Your task to perform on an android device: refresh tabs in the chrome app Image 0: 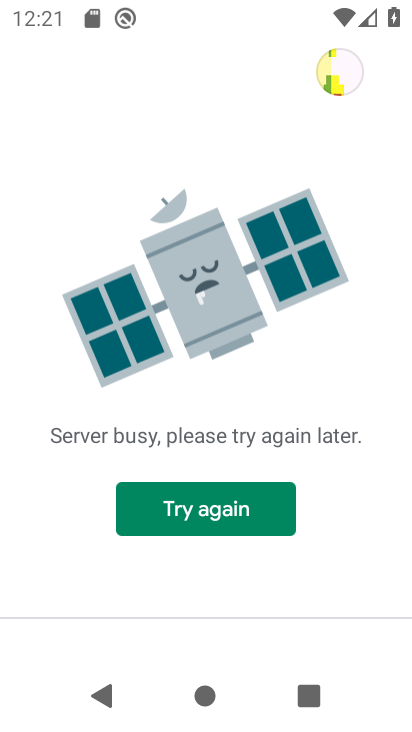
Step 0: press home button
Your task to perform on an android device: refresh tabs in the chrome app Image 1: 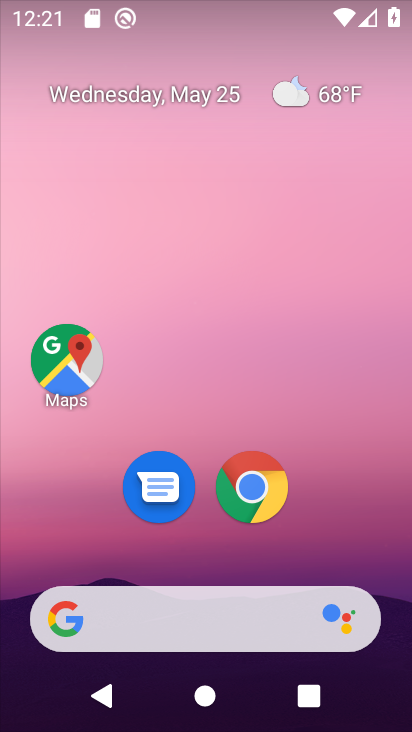
Step 1: click (260, 484)
Your task to perform on an android device: refresh tabs in the chrome app Image 2: 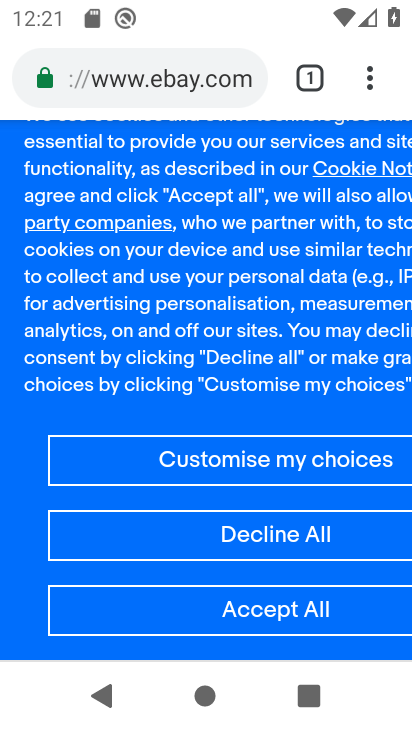
Step 2: click (364, 69)
Your task to perform on an android device: refresh tabs in the chrome app Image 3: 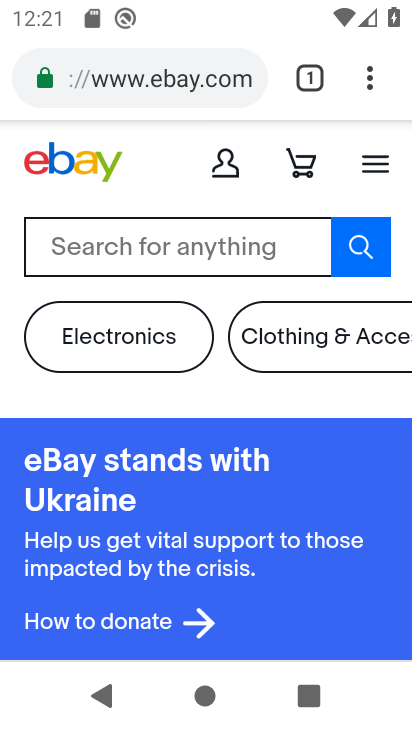
Step 3: task complete